Your task to perform on an android device: Go to wifi settings Image 0: 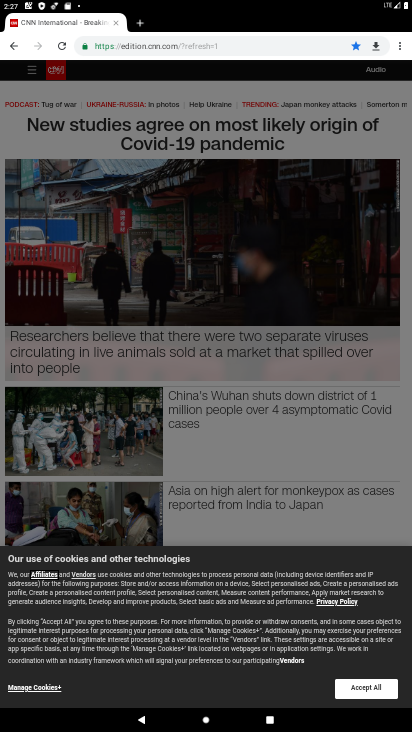
Step 0: click (139, 650)
Your task to perform on an android device: Go to wifi settings Image 1: 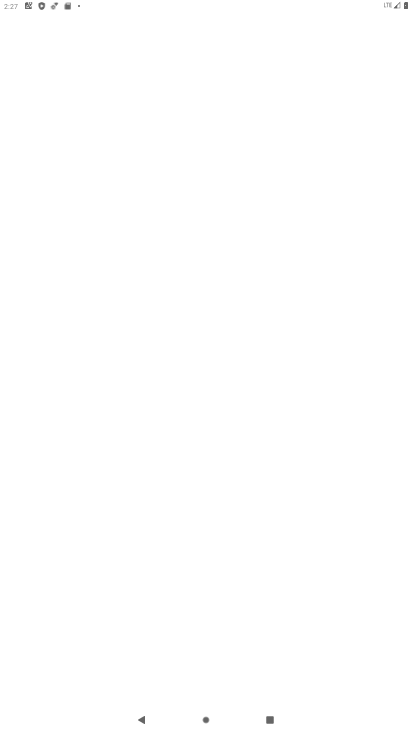
Step 1: press home button
Your task to perform on an android device: Go to wifi settings Image 2: 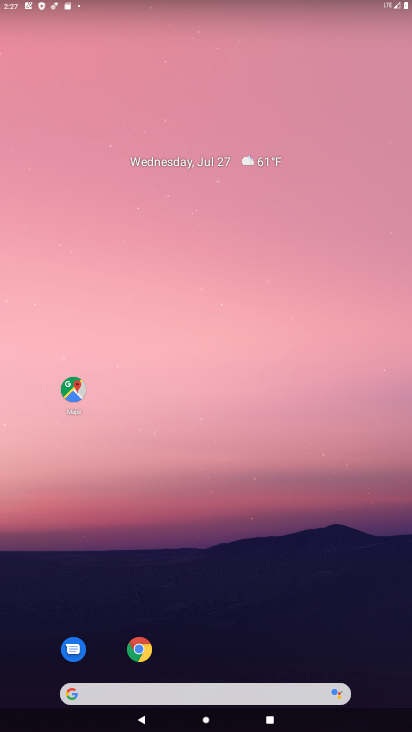
Step 2: drag from (166, 658) to (166, 214)
Your task to perform on an android device: Go to wifi settings Image 3: 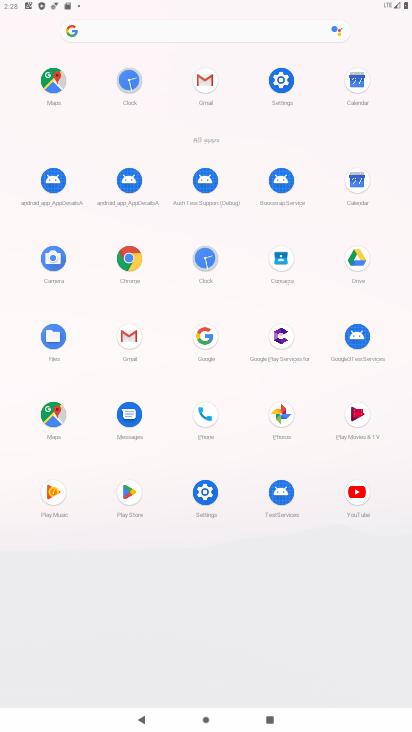
Step 3: click (208, 490)
Your task to perform on an android device: Go to wifi settings Image 4: 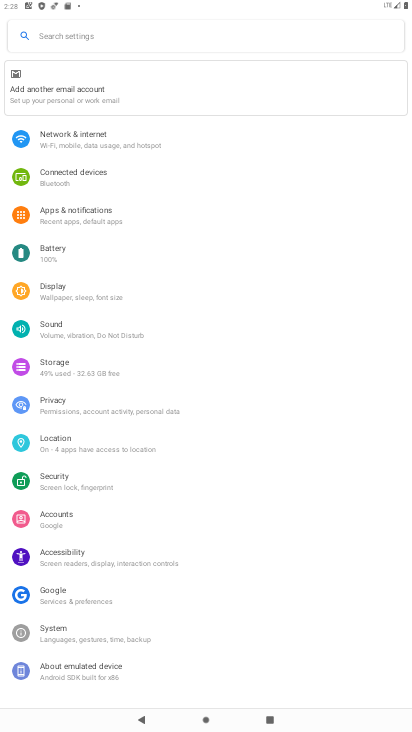
Step 4: click (77, 139)
Your task to perform on an android device: Go to wifi settings Image 5: 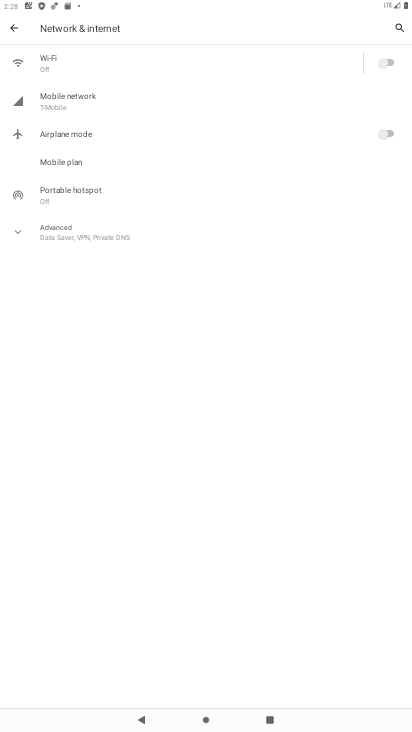
Step 5: click (136, 59)
Your task to perform on an android device: Go to wifi settings Image 6: 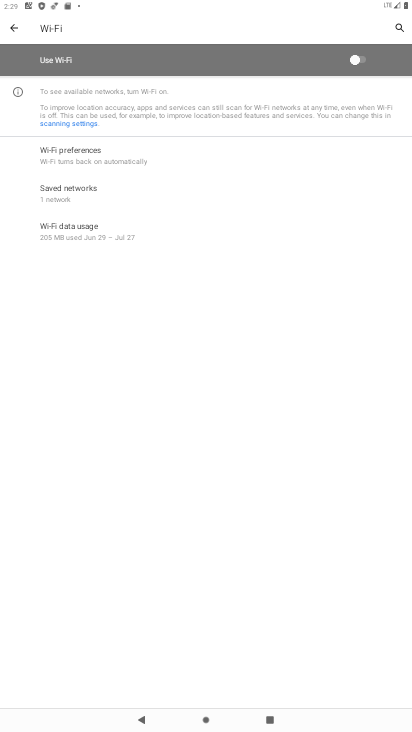
Step 6: task complete